Your task to perform on an android device: check out phone information Image 0: 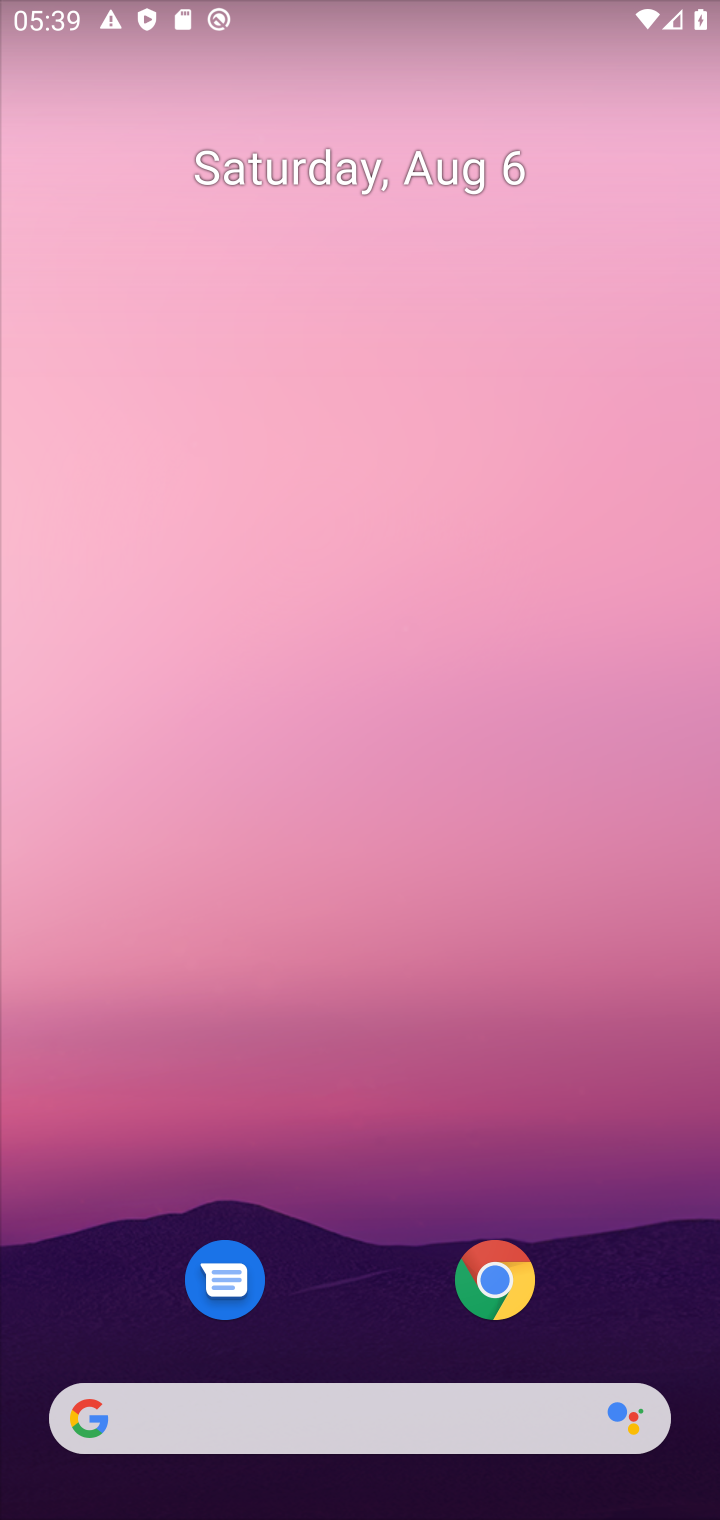
Step 0: drag from (384, 1392) to (437, 209)
Your task to perform on an android device: check out phone information Image 1: 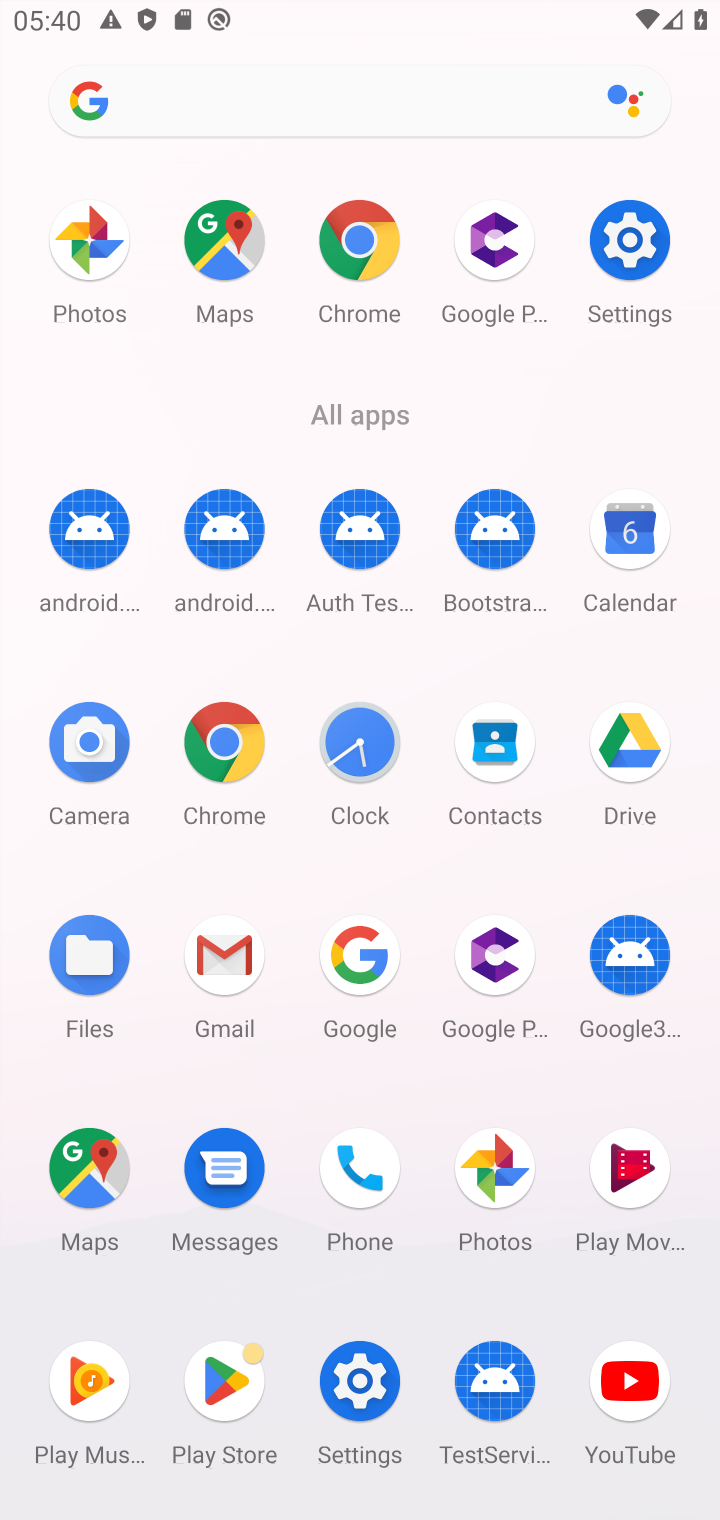
Step 1: click (624, 223)
Your task to perform on an android device: check out phone information Image 2: 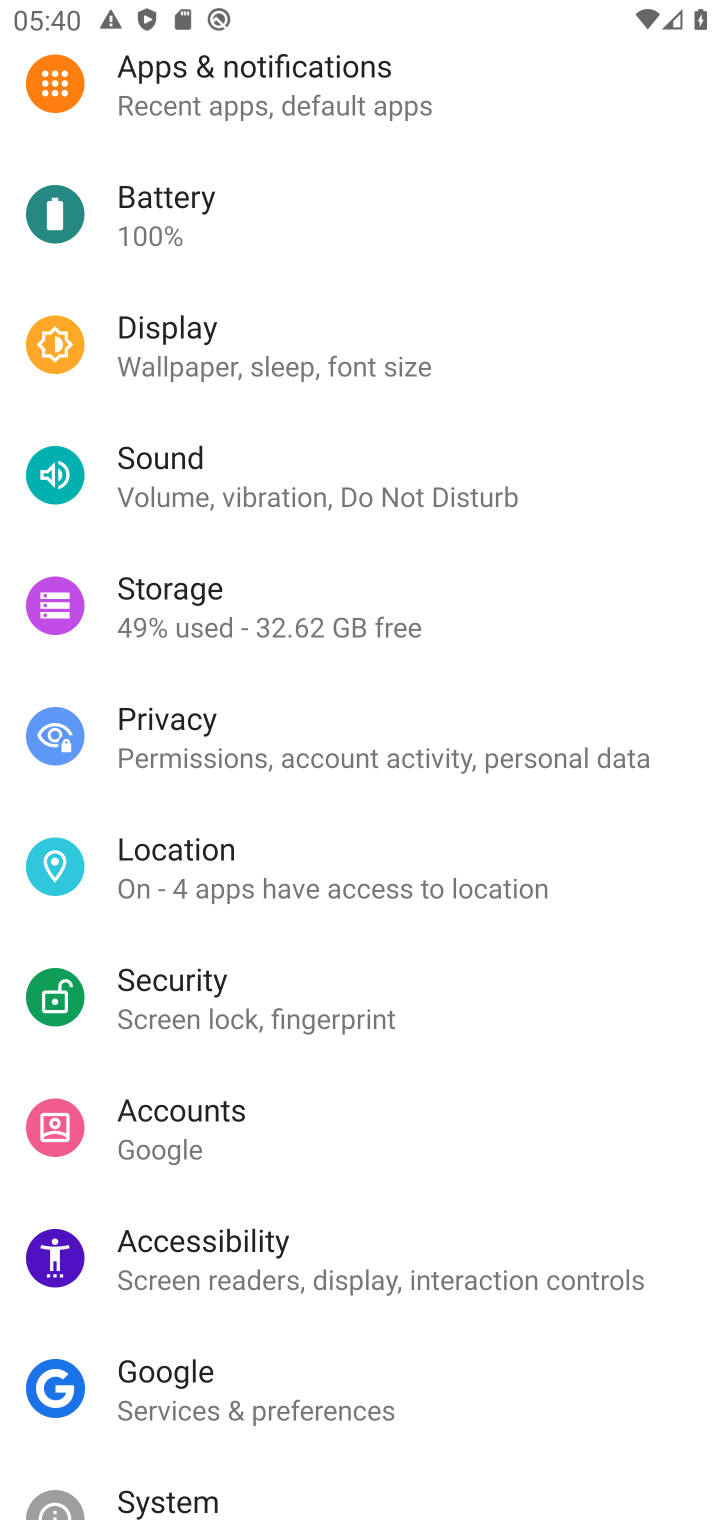
Step 2: drag from (291, 1258) to (349, 359)
Your task to perform on an android device: check out phone information Image 3: 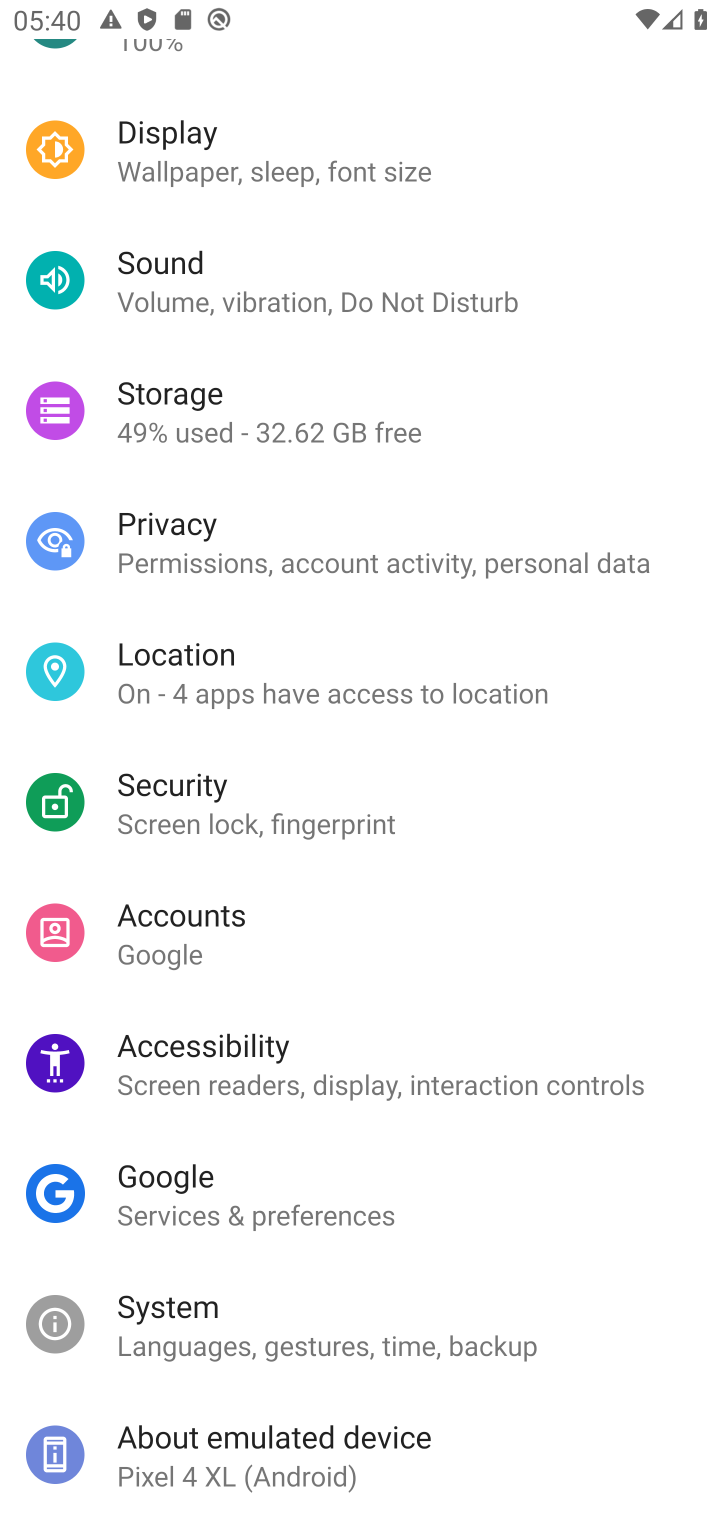
Step 3: click (273, 1470)
Your task to perform on an android device: check out phone information Image 4: 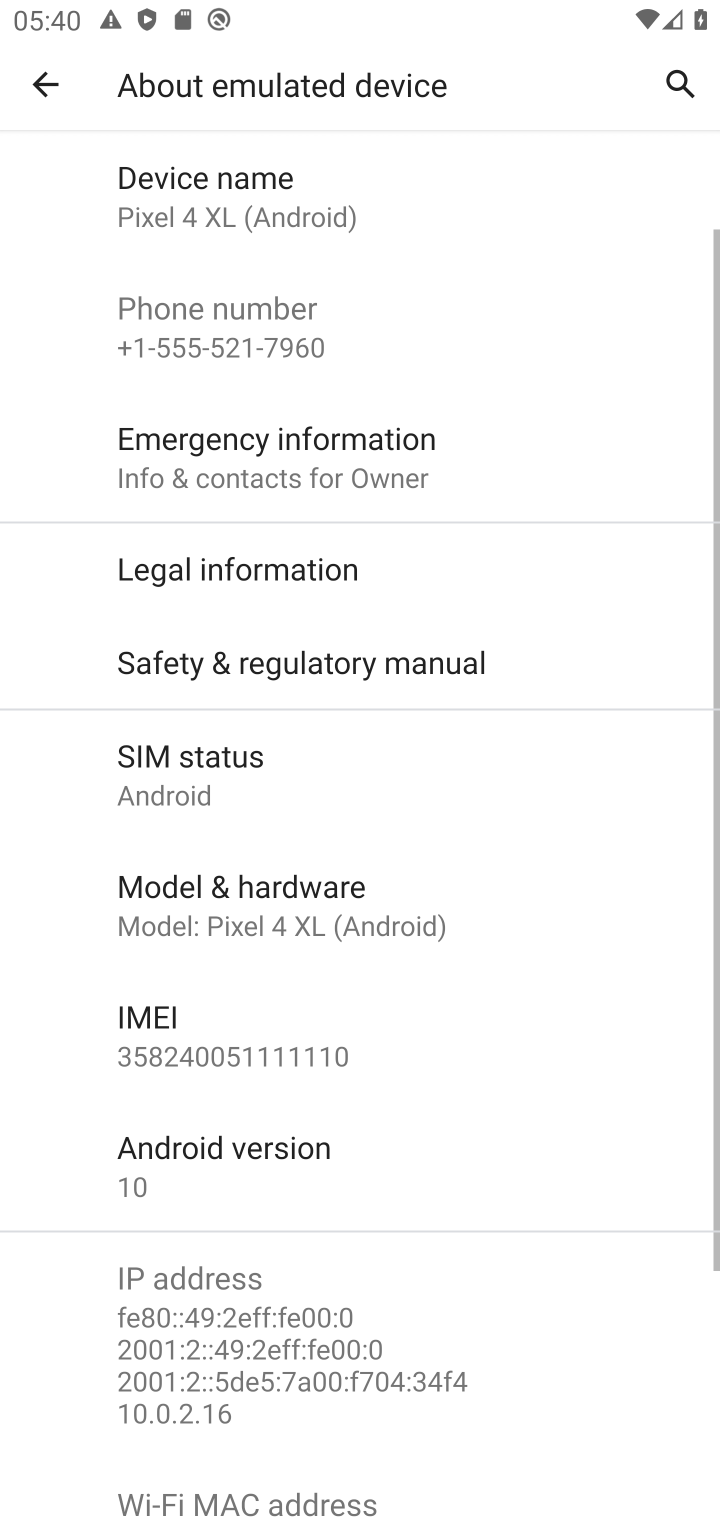
Step 4: task complete